Your task to perform on an android device: remove spam from my inbox in the gmail app Image 0: 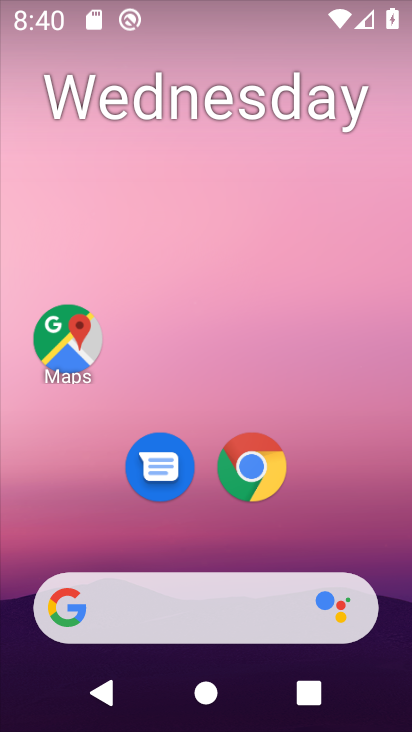
Step 0: drag from (405, 325) to (395, 57)
Your task to perform on an android device: remove spam from my inbox in the gmail app Image 1: 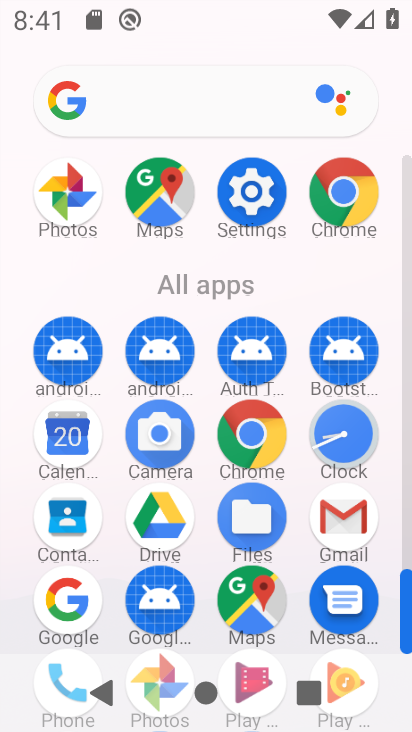
Step 1: click (360, 511)
Your task to perform on an android device: remove spam from my inbox in the gmail app Image 2: 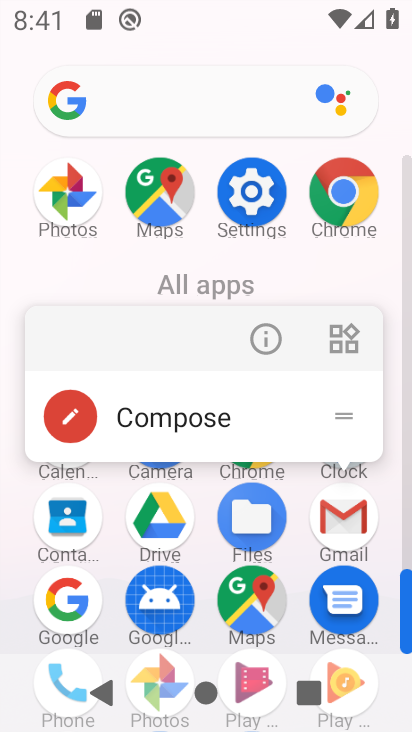
Step 2: click (359, 511)
Your task to perform on an android device: remove spam from my inbox in the gmail app Image 3: 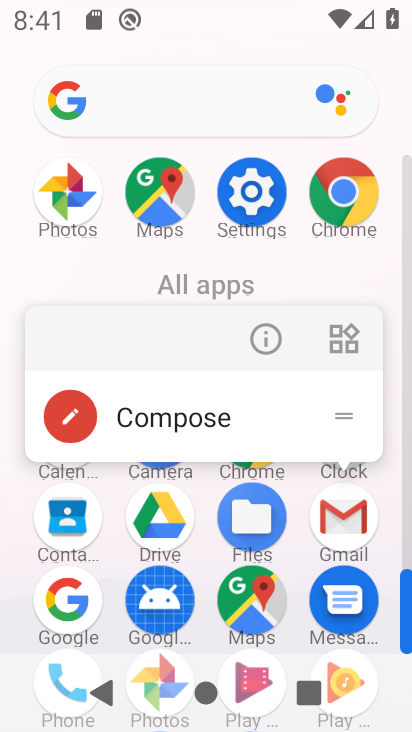
Step 3: click (356, 509)
Your task to perform on an android device: remove spam from my inbox in the gmail app Image 4: 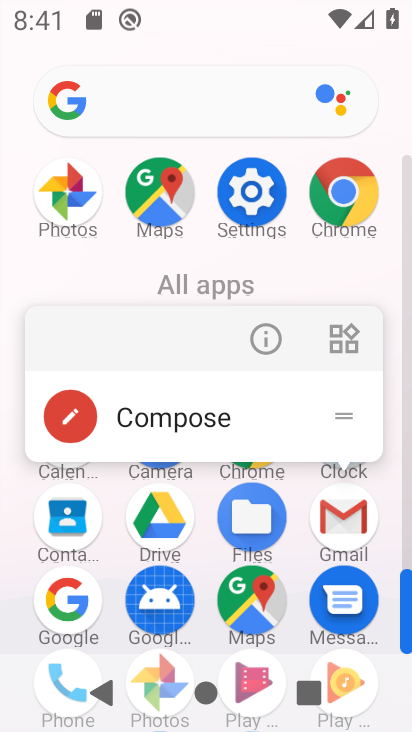
Step 4: click (356, 509)
Your task to perform on an android device: remove spam from my inbox in the gmail app Image 5: 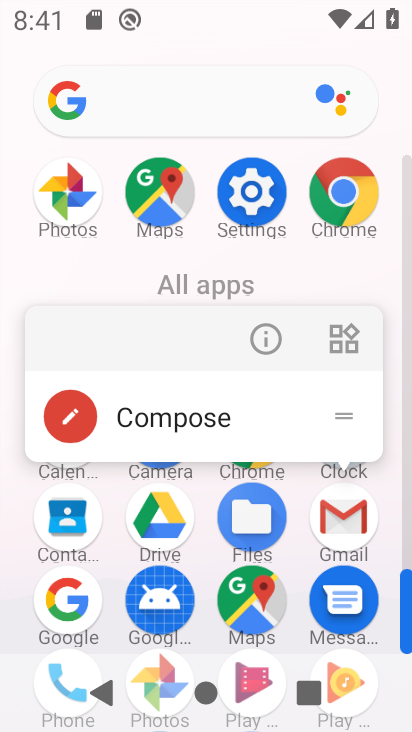
Step 5: click (353, 509)
Your task to perform on an android device: remove spam from my inbox in the gmail app Image 6: 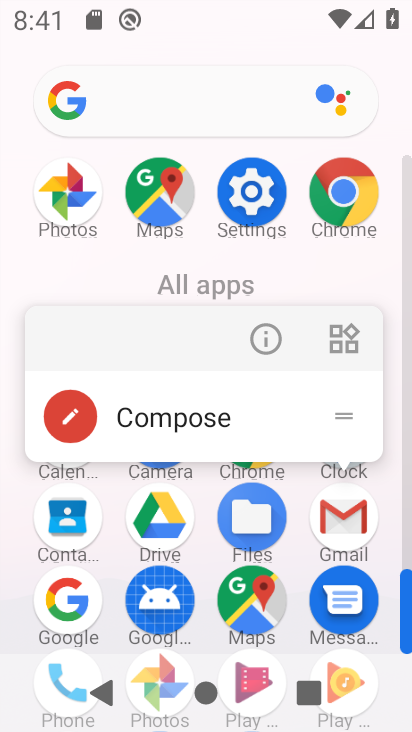
Step 6: click (353, 509)
Your task to perform on an android device: remove spam from my inbox in the gmail app Image 7: 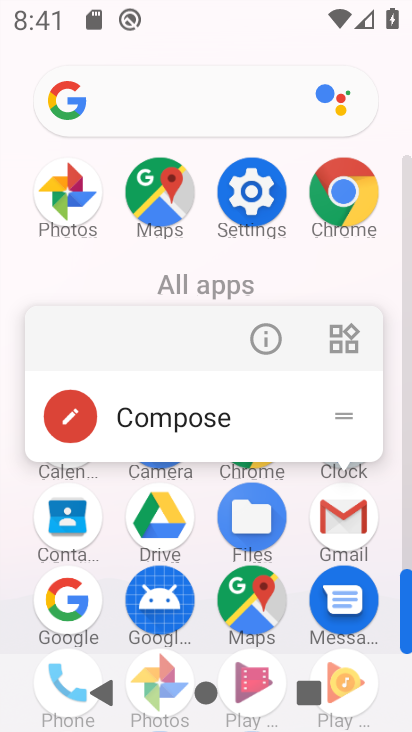
Step 7: click (353, 509)
Your task to perform on an android device: remove spam from my inbox in the gmail app Image 8: 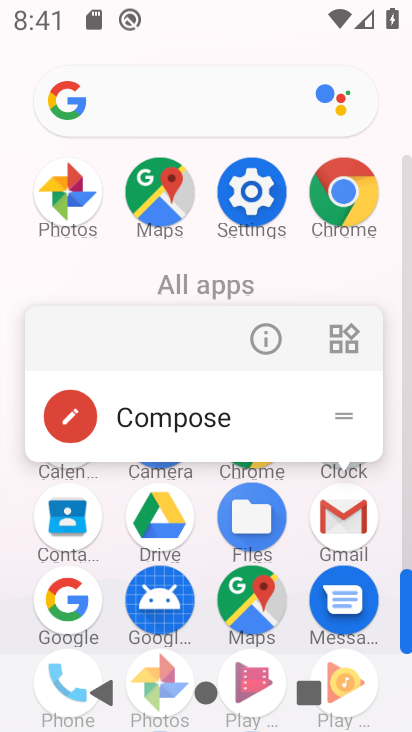
Step 8: click (353, 509)
Your task to perform on an android device: remove spam from my inbox in the gmail app Image 9: 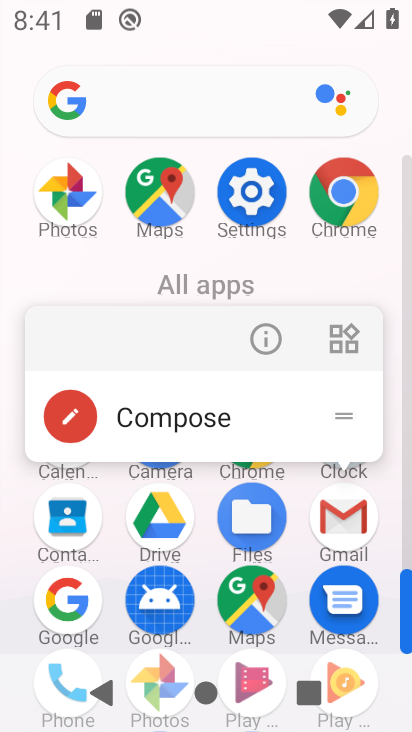
Step 9: click (353, 509)
Your task to perform on an android device: remove spam from my inbox in the gmail app Image 10: 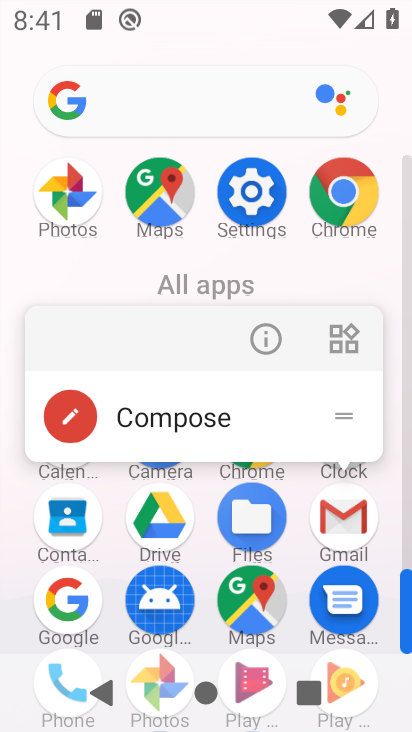
Step 10: click (353, 509)
Your task to perform on an android device: remove spam from my inbox in the gmail app Image 11: 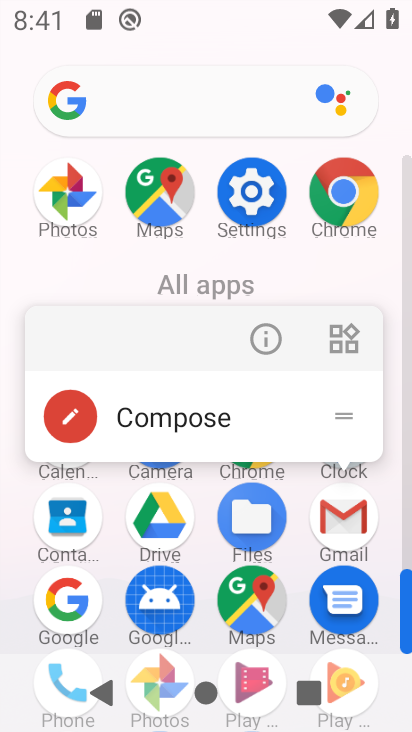
Step 11: click (353, 509)
Your task to perform on an android device: remove spam from my inbox in the gmail app Image 12: 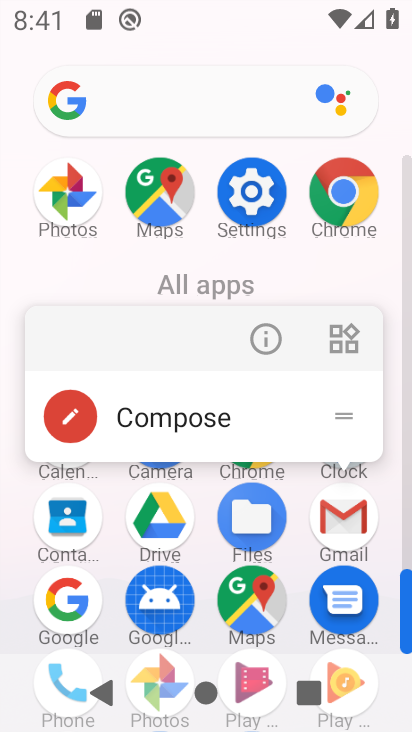
Step 12: click (353, 509)
Your task to perform on an android device: remove spam from my inbox in the gmail app Image 13: 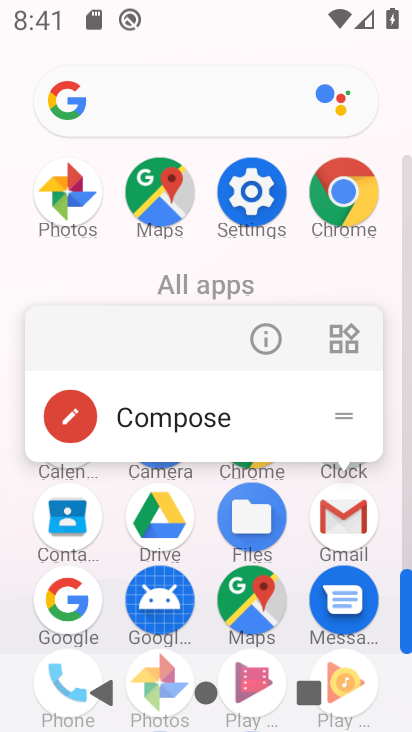
Step 13: click (353, 509)
Your task to perform on an android device: remove spam from my inbox in the gmail app Image 14: 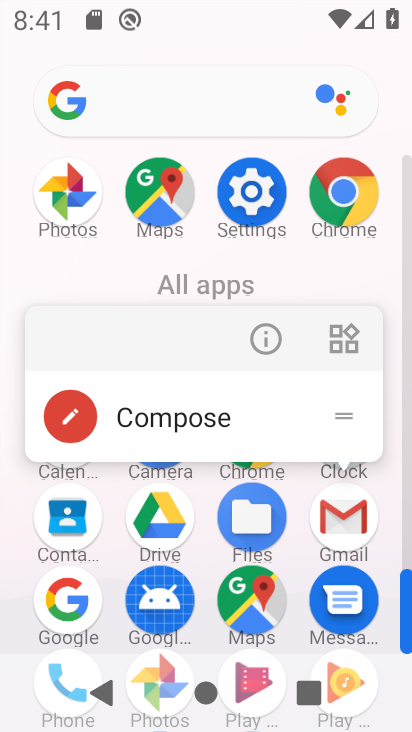
Step 14: click (353, 509)
Your task to perform on an android device: remove spam from my inbox in the gmail app Image 15: 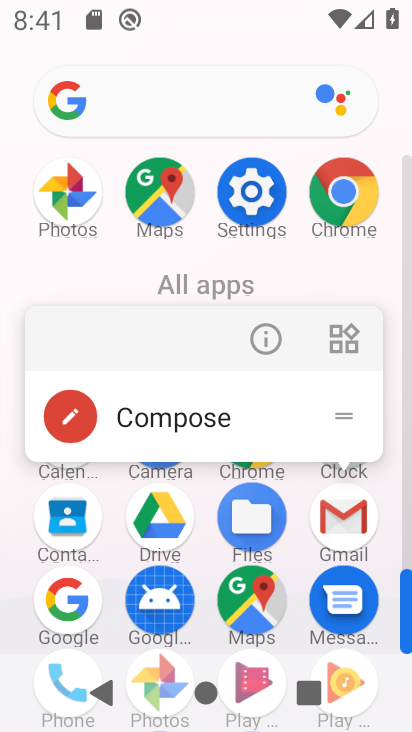
Step 15: click (353, 509)
Your task to perform on an android device: remove spam from my inbox in the gmail app Image 16: 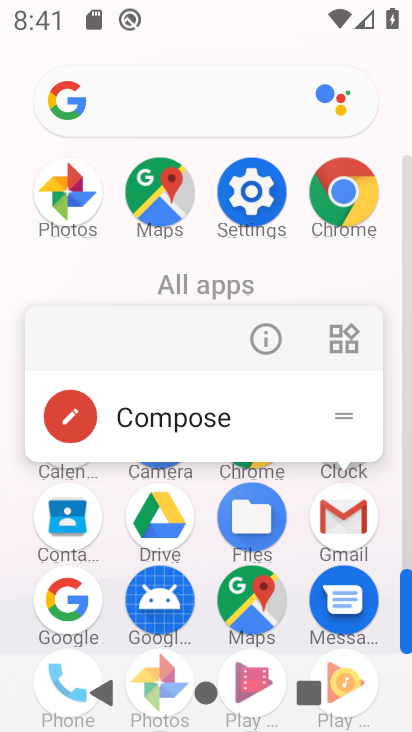
Step 16: click (353, 509)
Your task to perform on an android device: remove spam from my inbox in the gmail app Image 17: 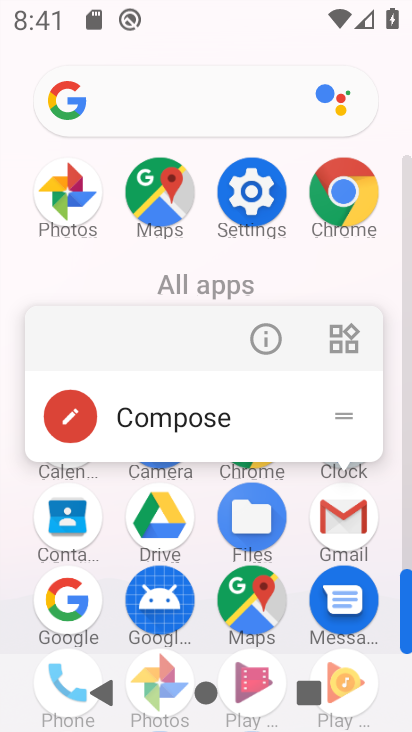
Step 17: click (353, 509)
Your task to perform on an android device: remove spam from my inbox in the gmail app Image 18: 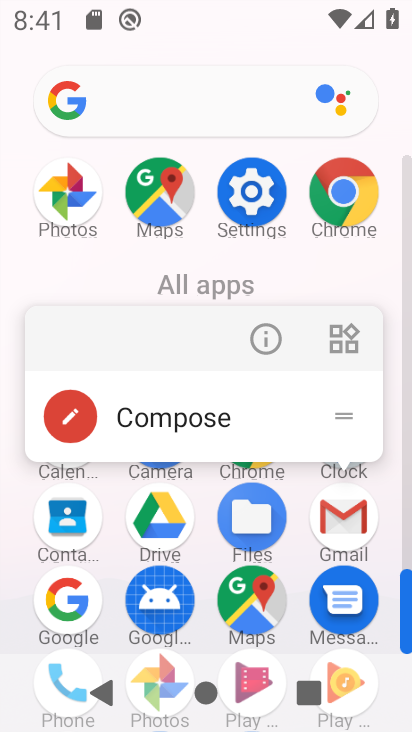
Step 18: click (353, 509)
Your task to perform on an android device: remove spam from my inbox in the gmail app Image 19: 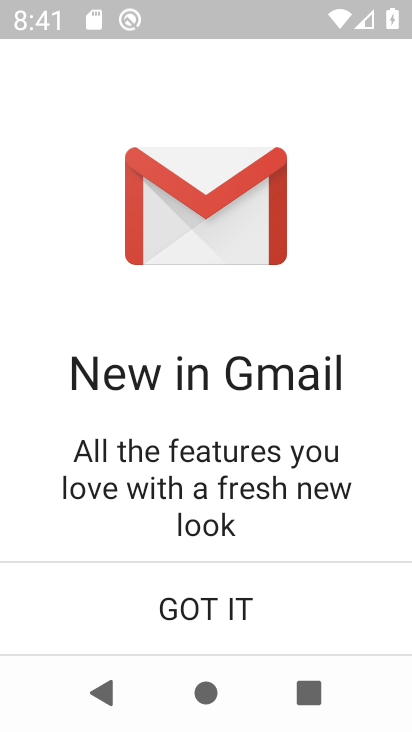
Step 19: click (234, 599)
Your task to perform on an android device: remove spam from my inbox in the gmail app Image 20: 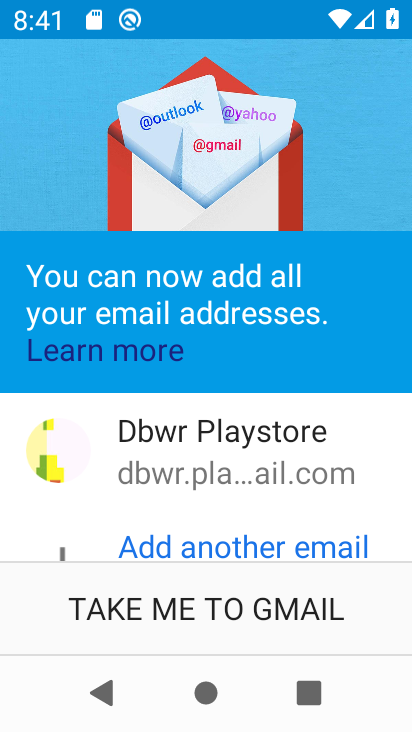
Step 20: click (234, 598)
Your task to perform on an android device: remove spam from my inbox in the gmail app Image 21: 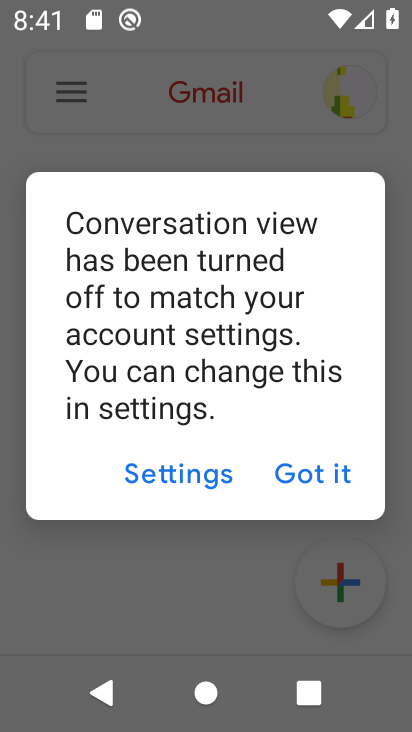
Step 21: click (293, 474)
Your task to perform on an android device: remove spam from my inbox in the gmail app Image 22: 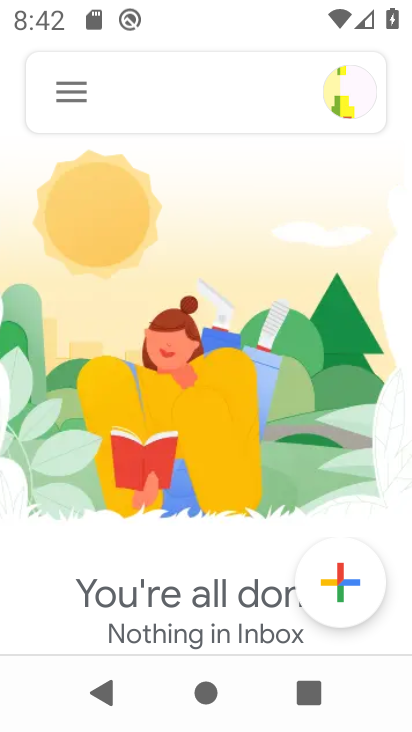
Step 22: click (79, 86)
Your task to perform on an android device: remove spam from my inbox in the gmail app Image 23: 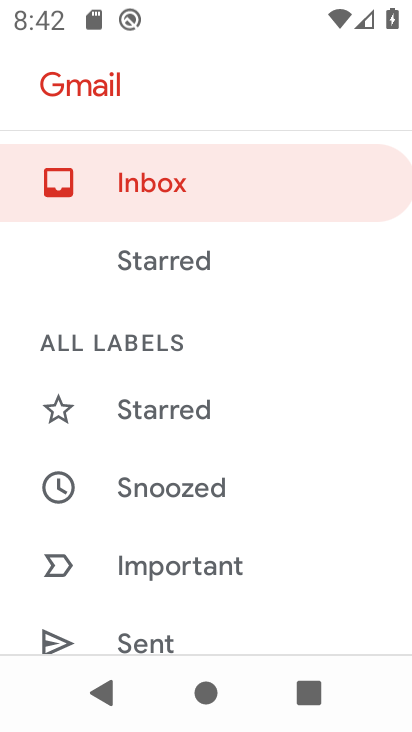
Step 23: drag from (242, 624) to (201, 265)
Your task to perform on an android device: remove spam from my inbox in the gmail app Image 24: 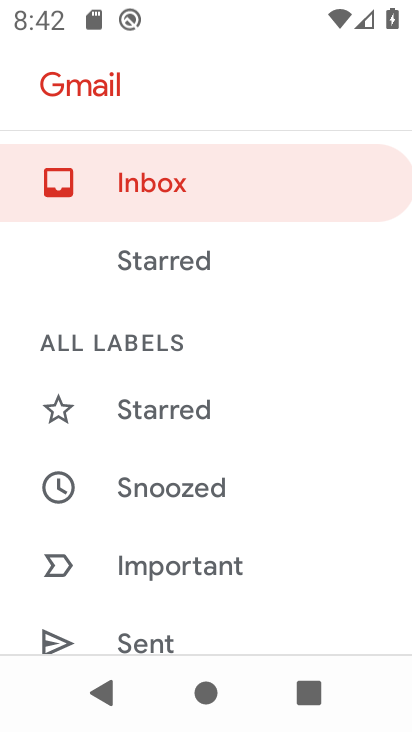
Step 24: drag from (212, 622) to (251, 261)
Your task to perform on an android device: remove spam from my inbox in the gmail app Image 25: 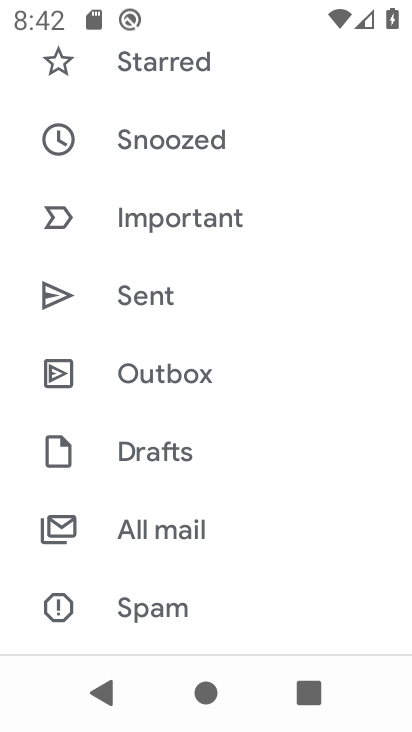
Step 25: drag from (312, 589) to (344, 265)
Your task to perform on an android device: remove spam from my inbox in the gmail app Image 26: 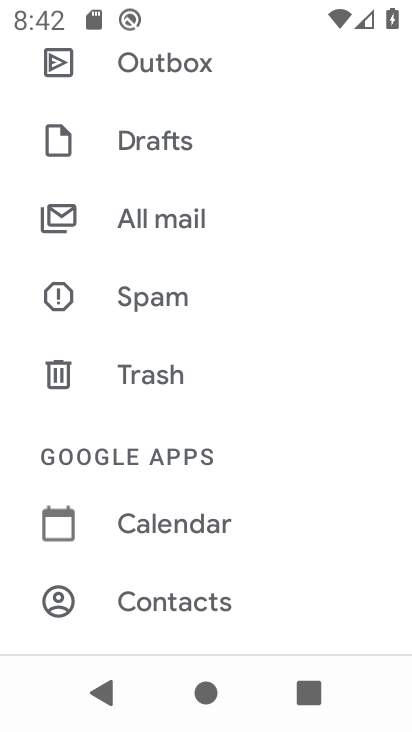
Step 26: click (162, 307)
Your task to perform on an android device: remove spam from my inbox in the gmail app Image 27: 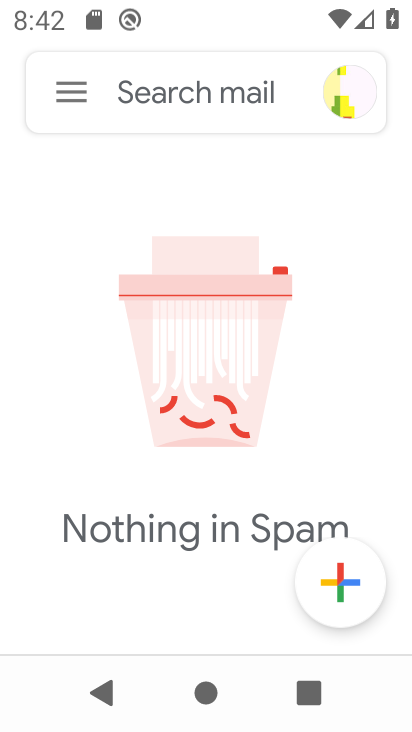
Step 27: task complete